Your task to perform on an android device: turn notification dots off Image 0: 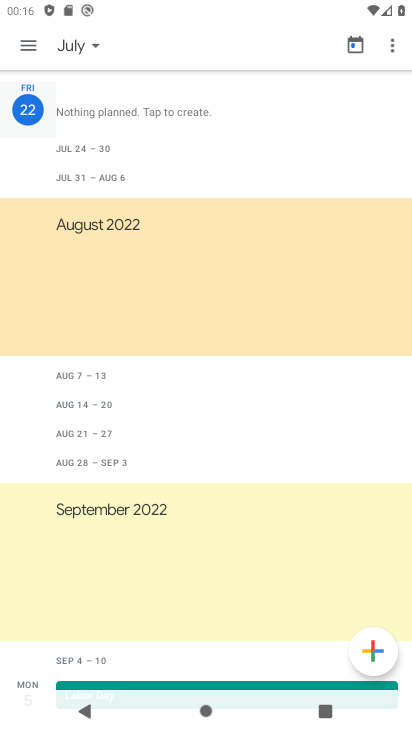
Step 0: press back button
Your task to perform on an android device: turn notification dots off Image 1: 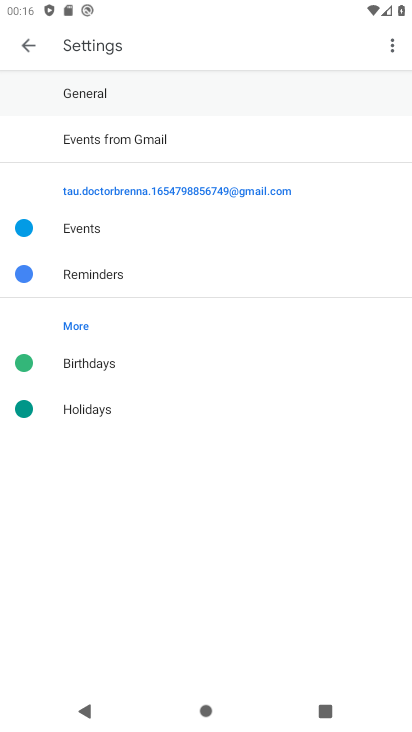
Step 1: press back button
Your task to perform on an android device: turn notification dots off Image 2: 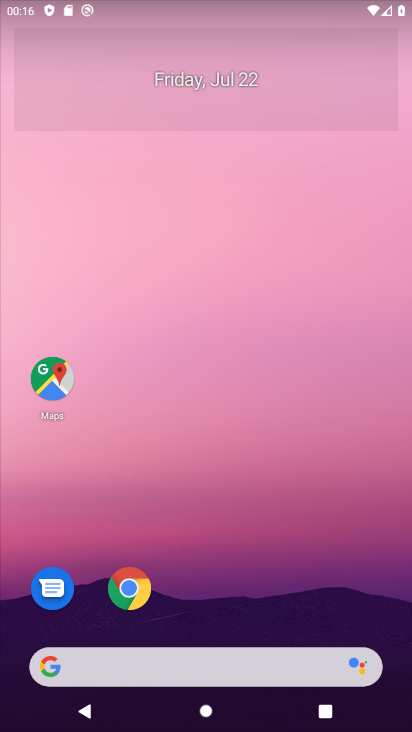
Step 2: drag from (206, 625) to (264, 13)
Your task to perform on an android device: turn notification dots off Image 3: 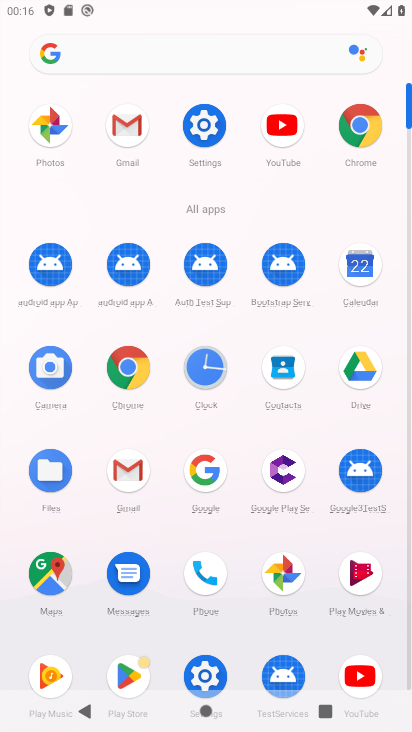
Step 3: click (208, 124)
Your task to perform on an android device: turn notification dots off Image 4: 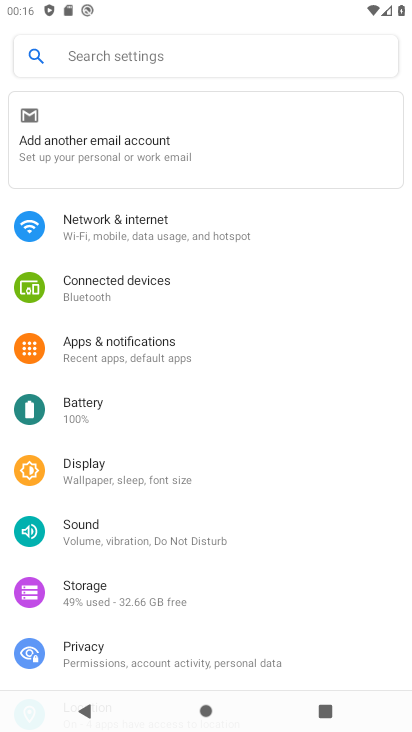
Step 4: click (133, 342)
Your task to perform on an android device: turn notification dots off Image 5: 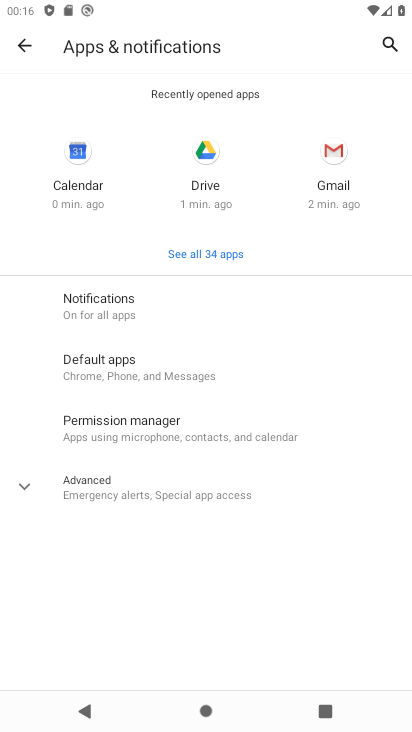
Step 5: click (116, 311)
Your task to perform on an android device: turn notification dots off Image 6: 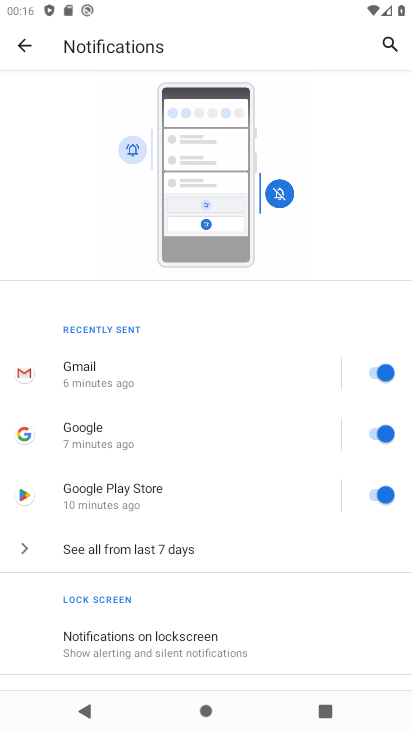
Step 6: drag from (156, 640) to (255, 174)
Your task to perform on an android device: turn notification dots off Image 7: 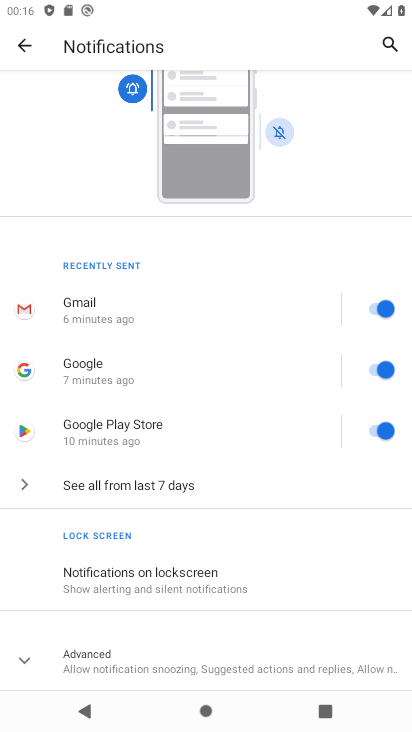
Step 7: click (102, 654)
Your task to perform on an android device: turn notification dots off Image 8: 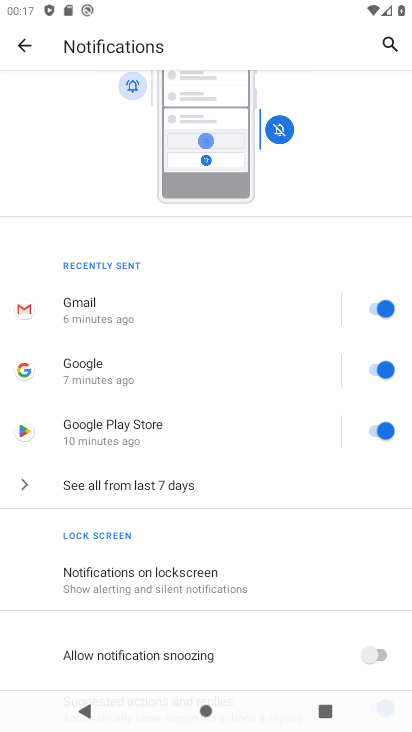
Step 8: drag from (211, 607) to (247, 164)
Your task to perform on an android device: turn notification dots off Image 9: 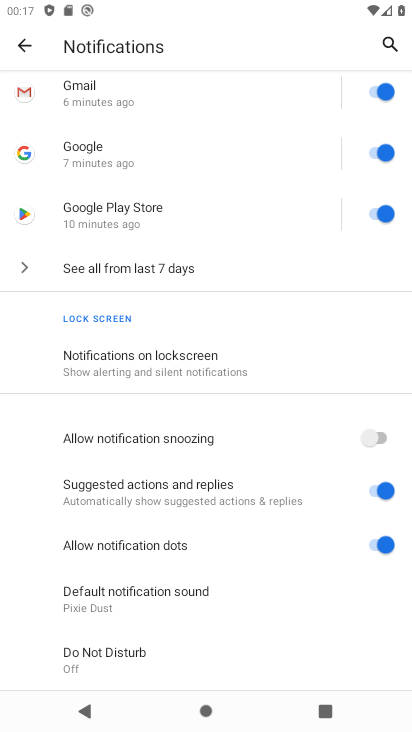
Step 9: click (384, 544)
Your task to perform on an android device: turn notification dots off Image 10: 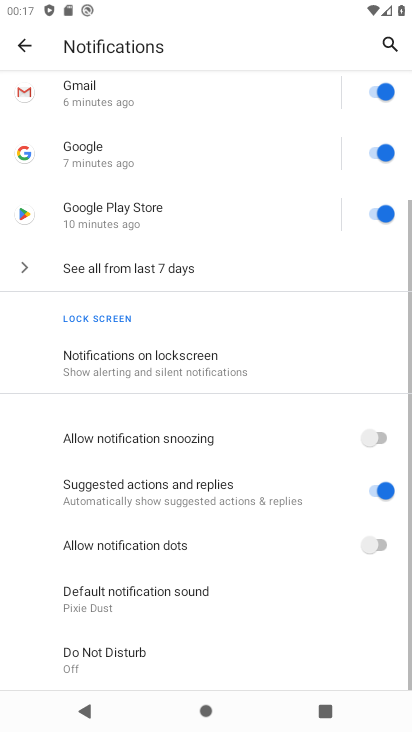
Step 10: task complete